Your task to perform on an android device: What is the recent news? Image 0: 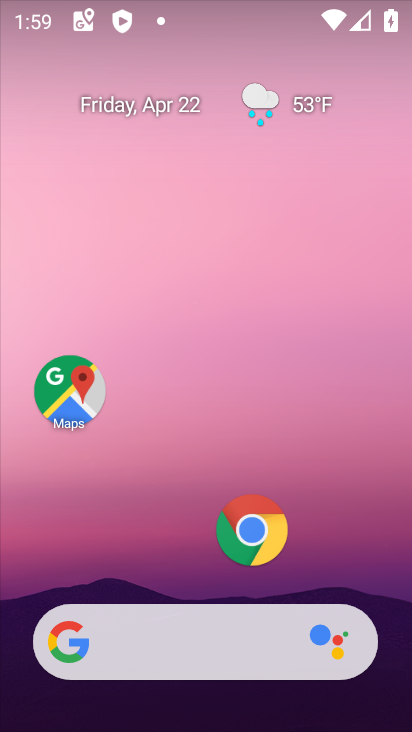
Step 0: drag from (36, 274) to (341, 119)
Your task to perform on an android device: What is the recent news? Image 1: 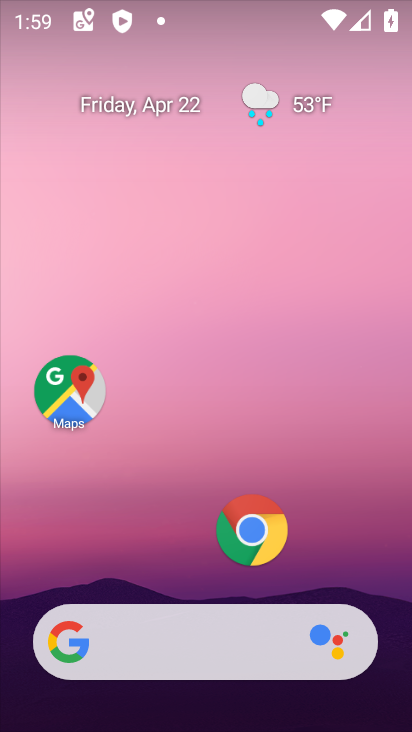
Step 1: task complete